Your task to perform on an android device: Add "beats solo 3" to the cart on bestbuy Image 0: 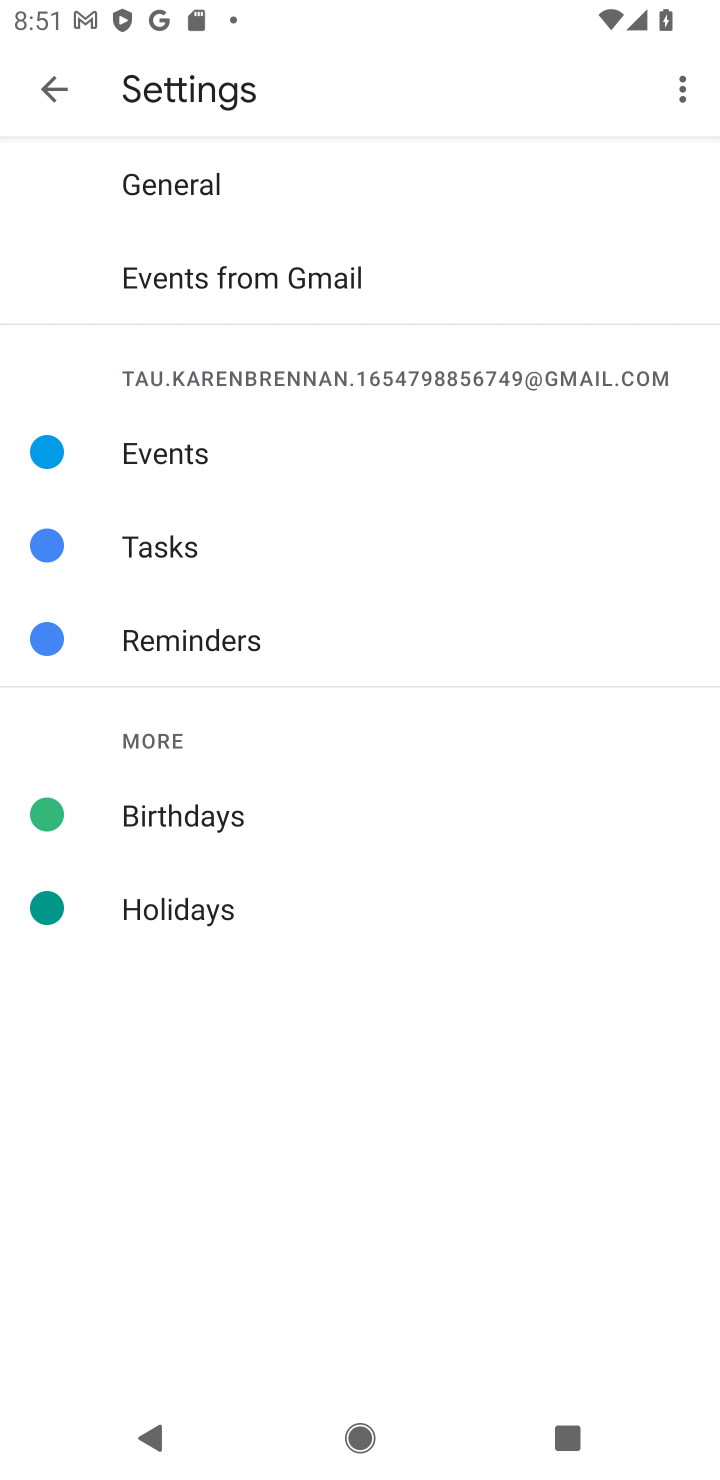
Step 0: press home button
Your task to perform on an android device: Add "beats solo 3" to the cart on bestbuy Image 1: 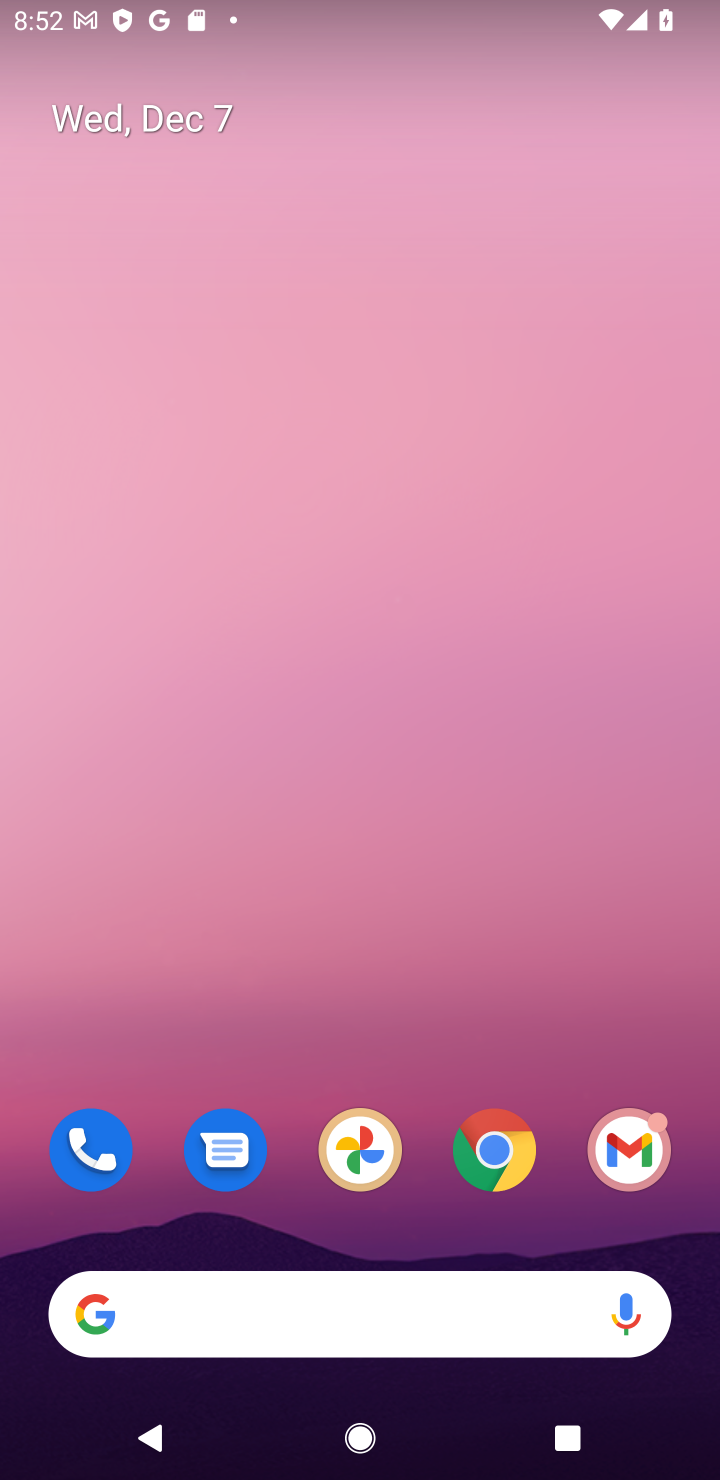
Step 1: click (501, 1165)
Your task to perform on an android device: Add "beats solo 3" to the cart on bestbuy Image 2: 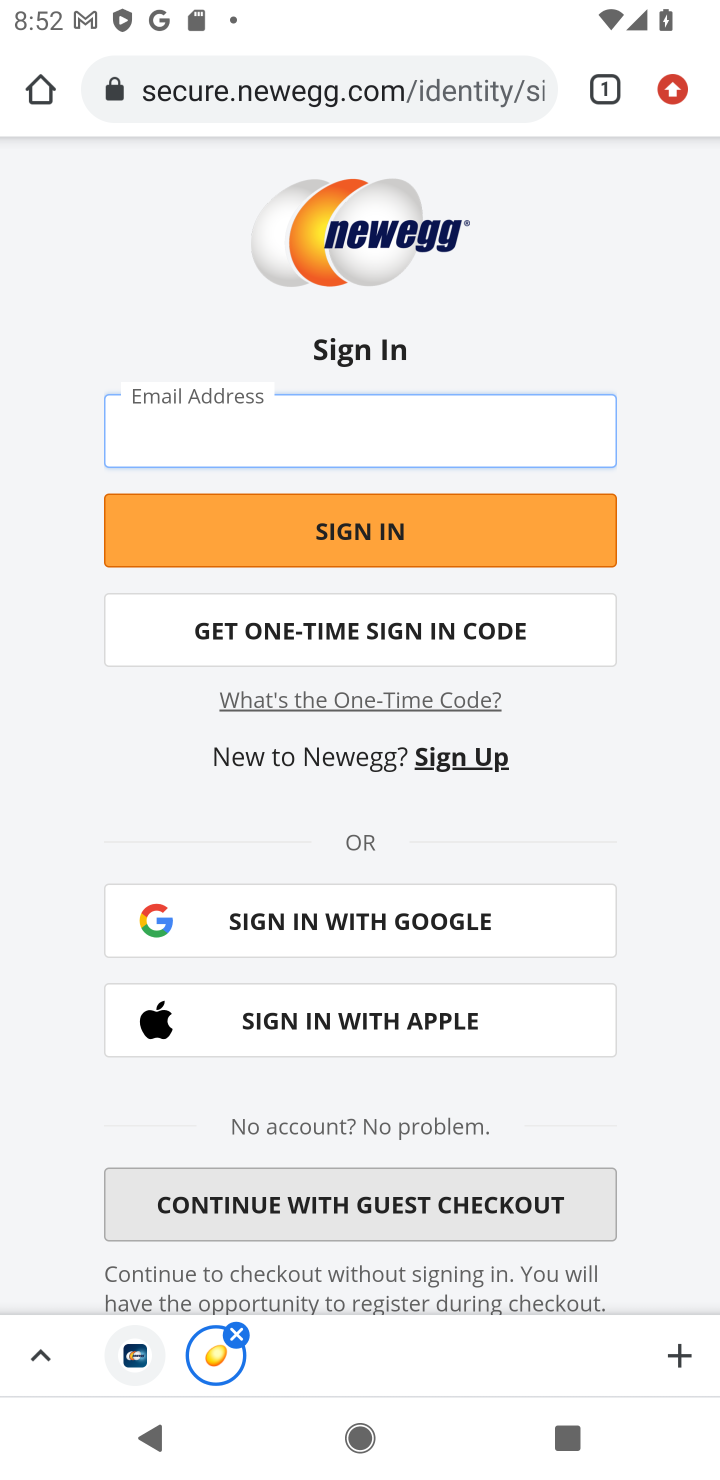
Step 2: click (289, 93)
Your task to perform on an android device: Add "beats solo 3" to the cart on bestbuy Image 3: 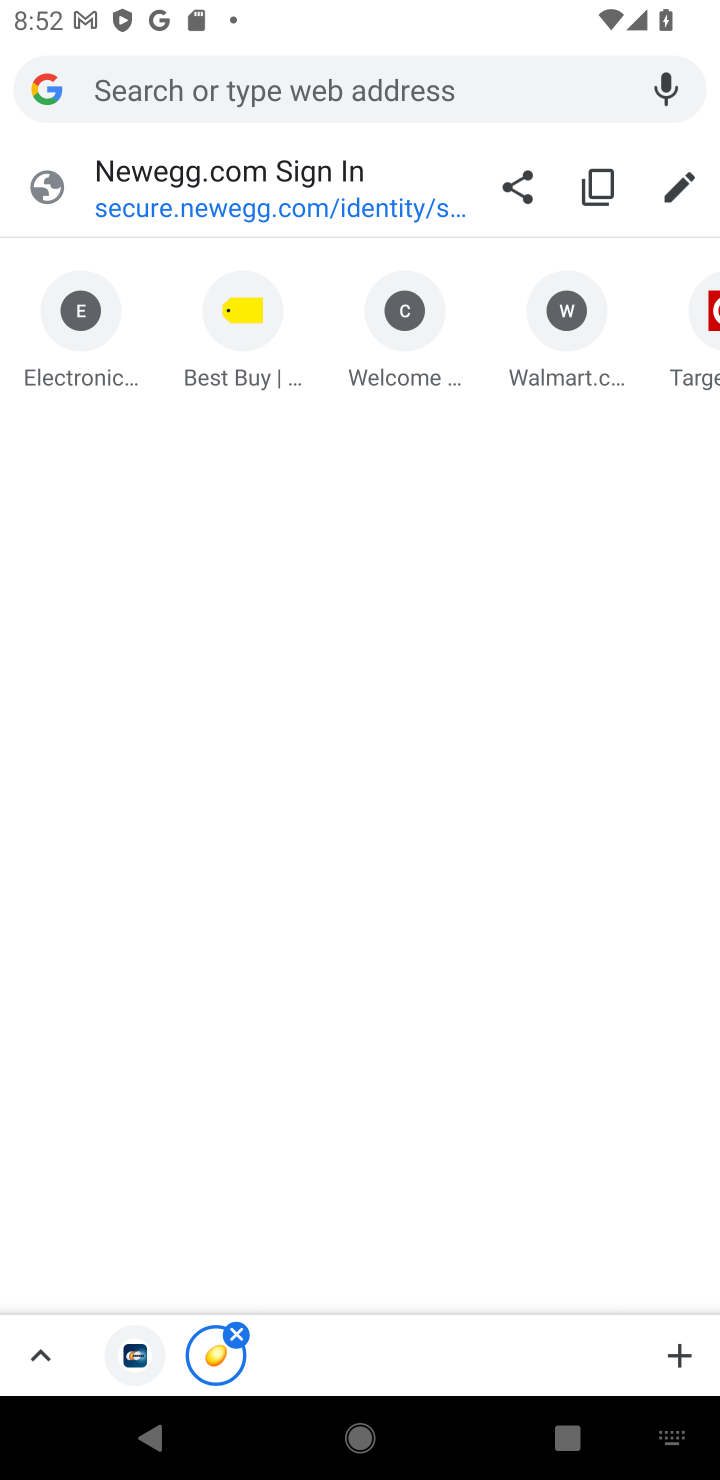
Step 3: type "bestbuy"
Your task to perform on an android device: Add "beats solo 3" to the cart on bestbuy Image 4: 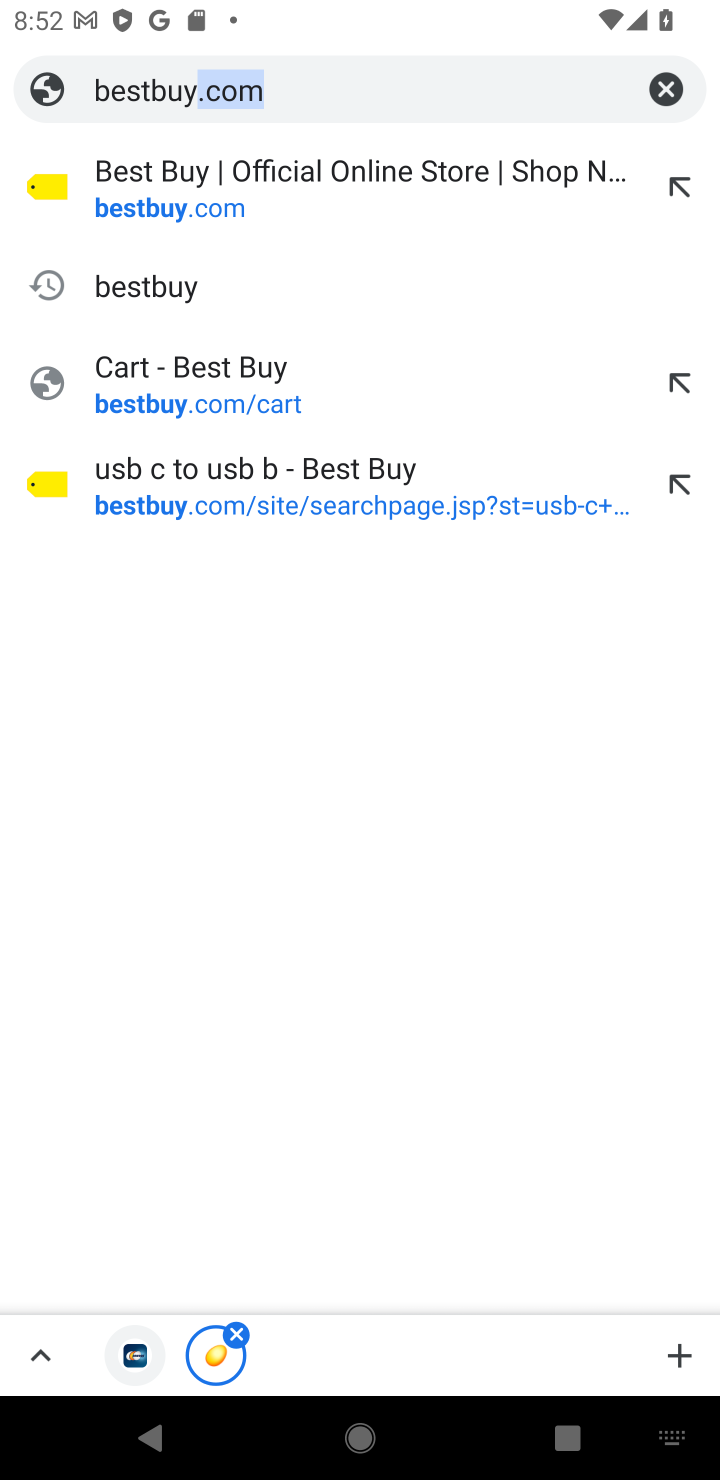
Step 4: click (270, 210)
Your task to perform on an android device: Add "beats solo 3" to the cart on bestbuy Image 5: 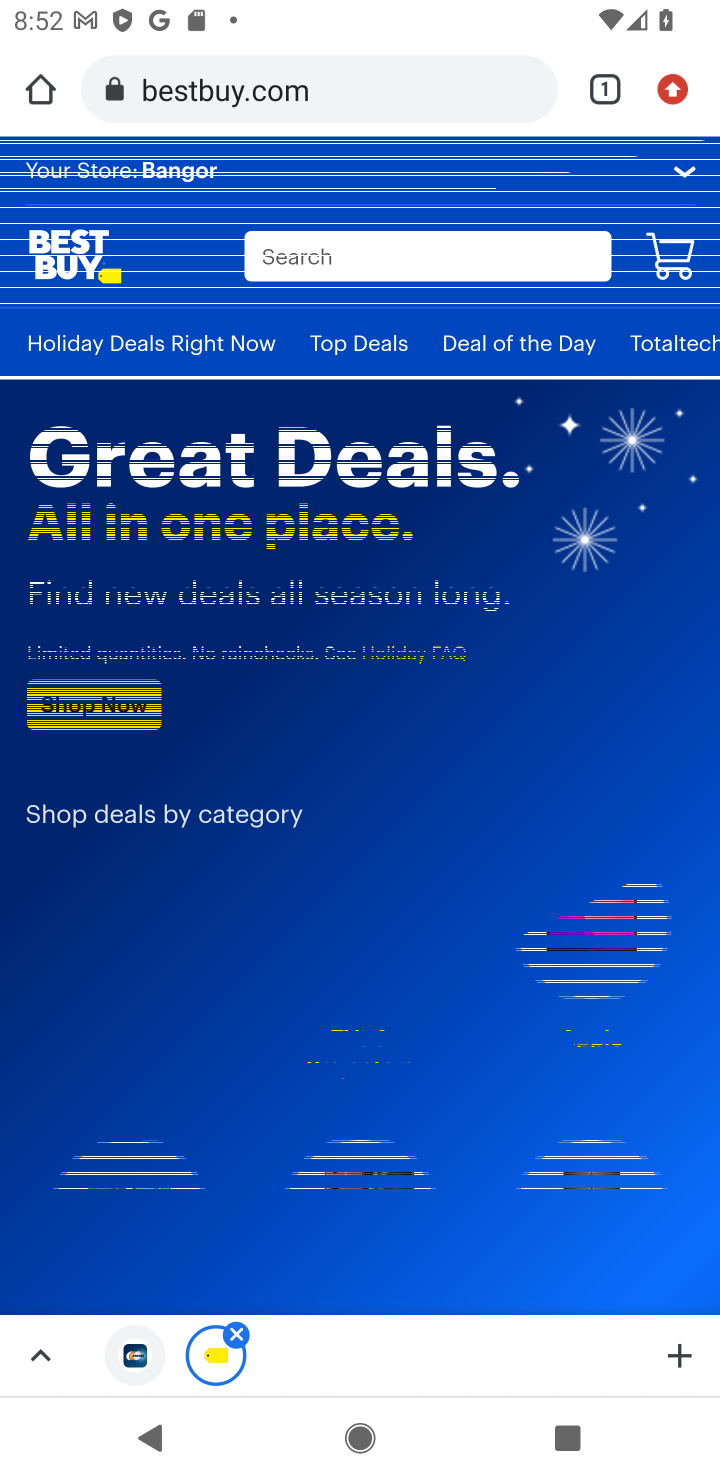
Step 5: click (365, 248)
Your task to perform on an android device: Add "beats solo 3" to the cart on bestbuy Image 6: 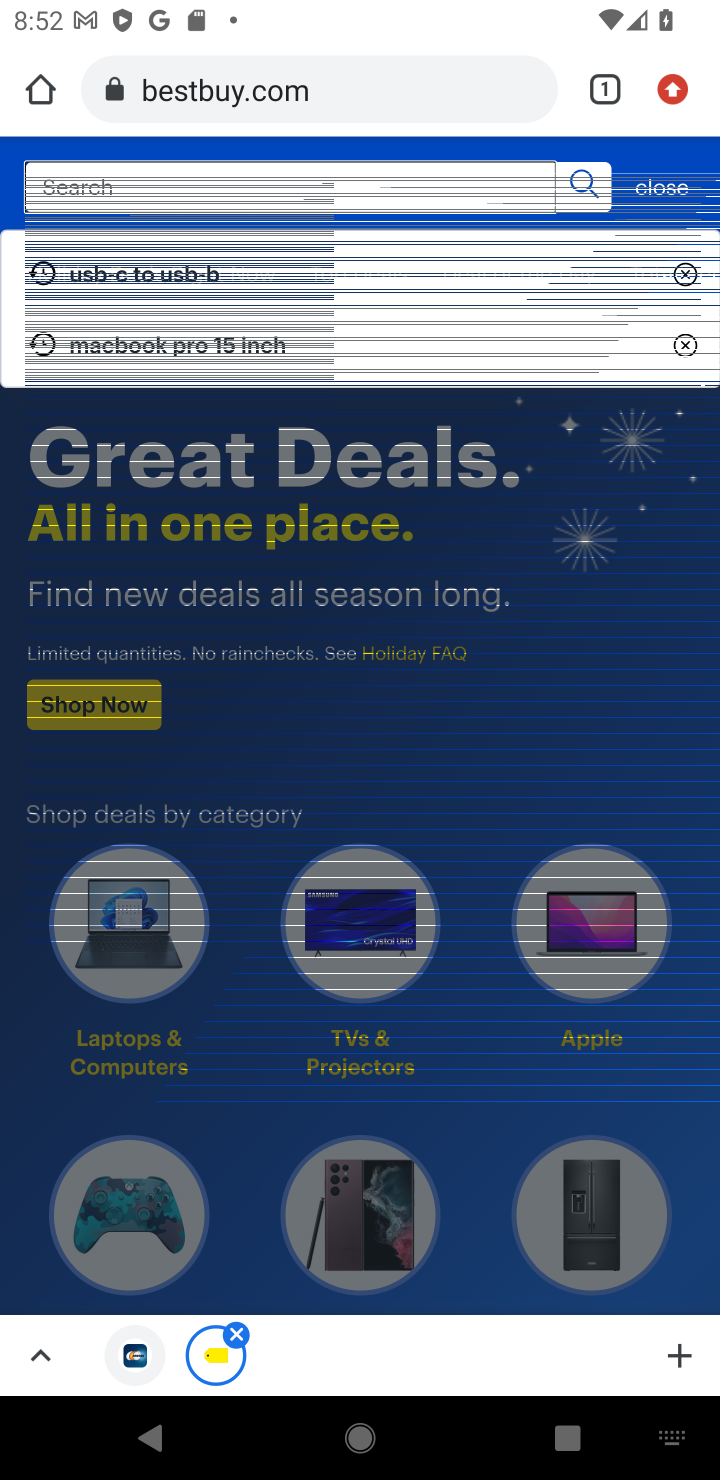
Step 6: type "beats solo 3"
Your task to perform on an android device: Add "beats solo 3" to the cart on bestbuy Image 7: 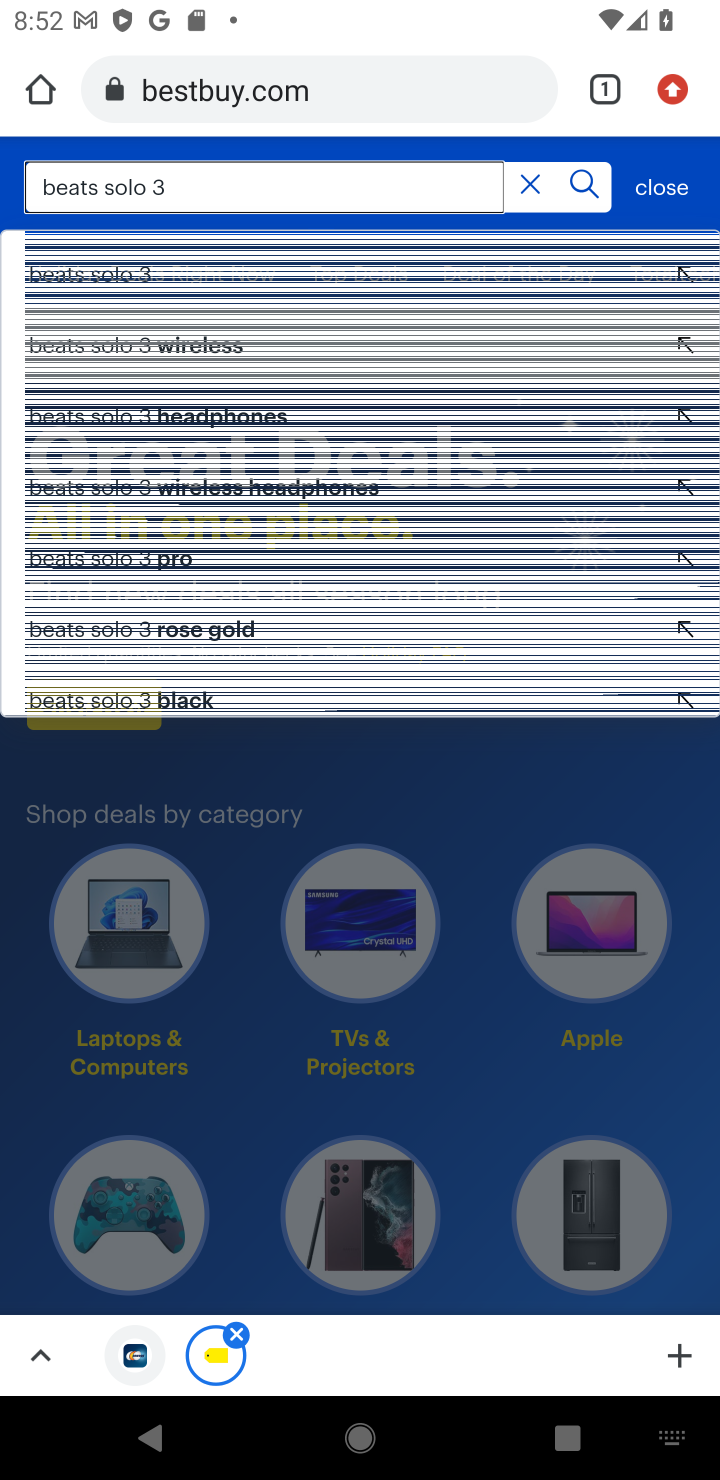
Step 7: press enter
Your task to perform on an android device: Add "beats solo 3" to the cart on bestbuy Image 8: 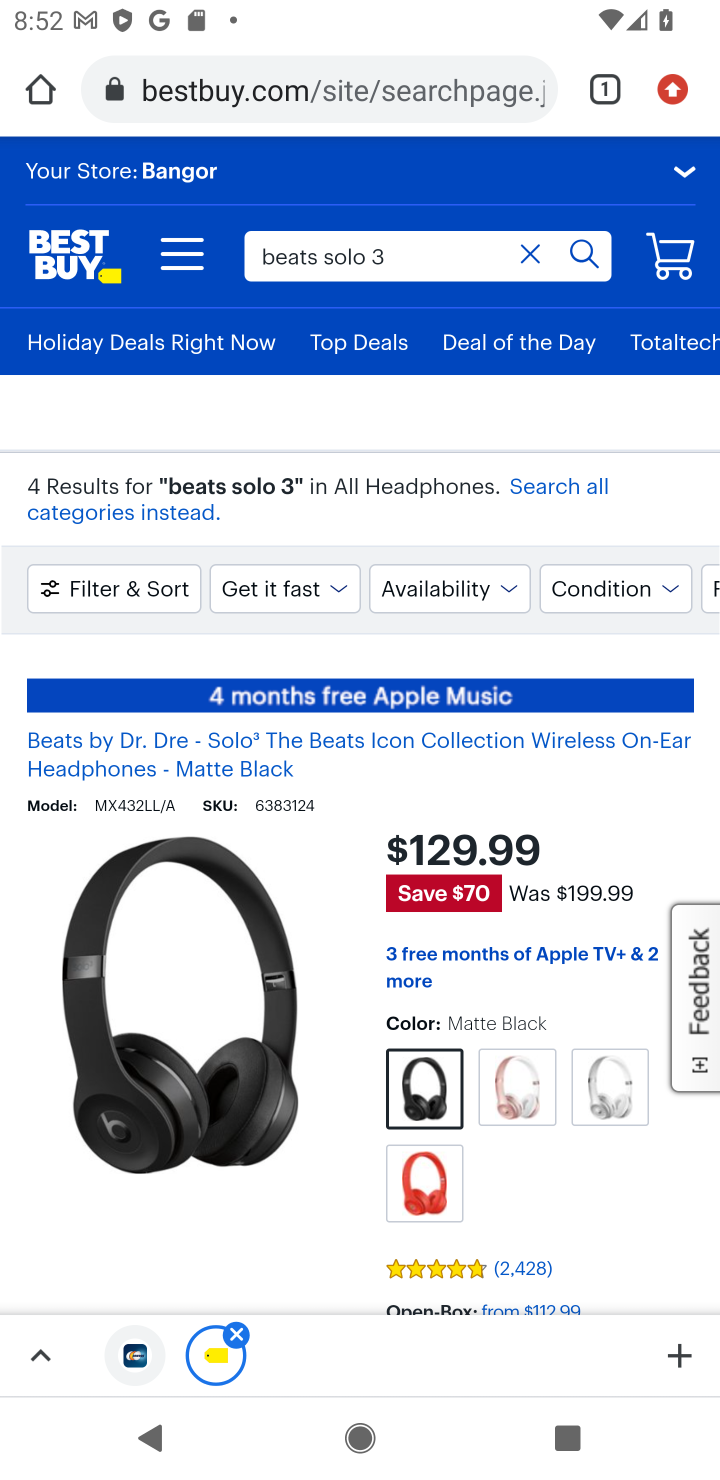
Step 8: drag from (364, 925) to (411, 409)
Your task to perform on an android device: Add "beats solo 3" to the cart on bestbuy Image 9: 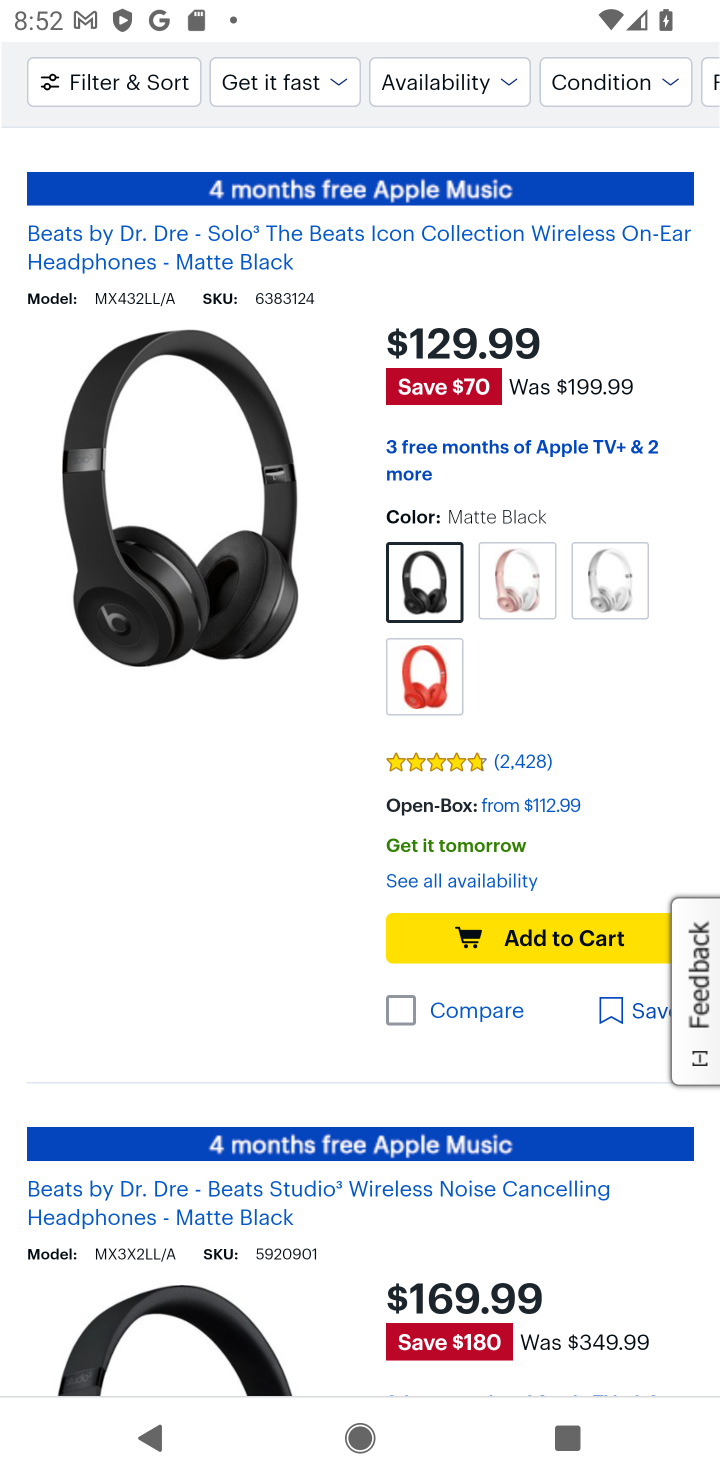
Step 9: drag from (512, 1183) to (561, 1462)
Your task to perform on an android device: Add "beats solo 3" to the cart on bestbuy Image 10: 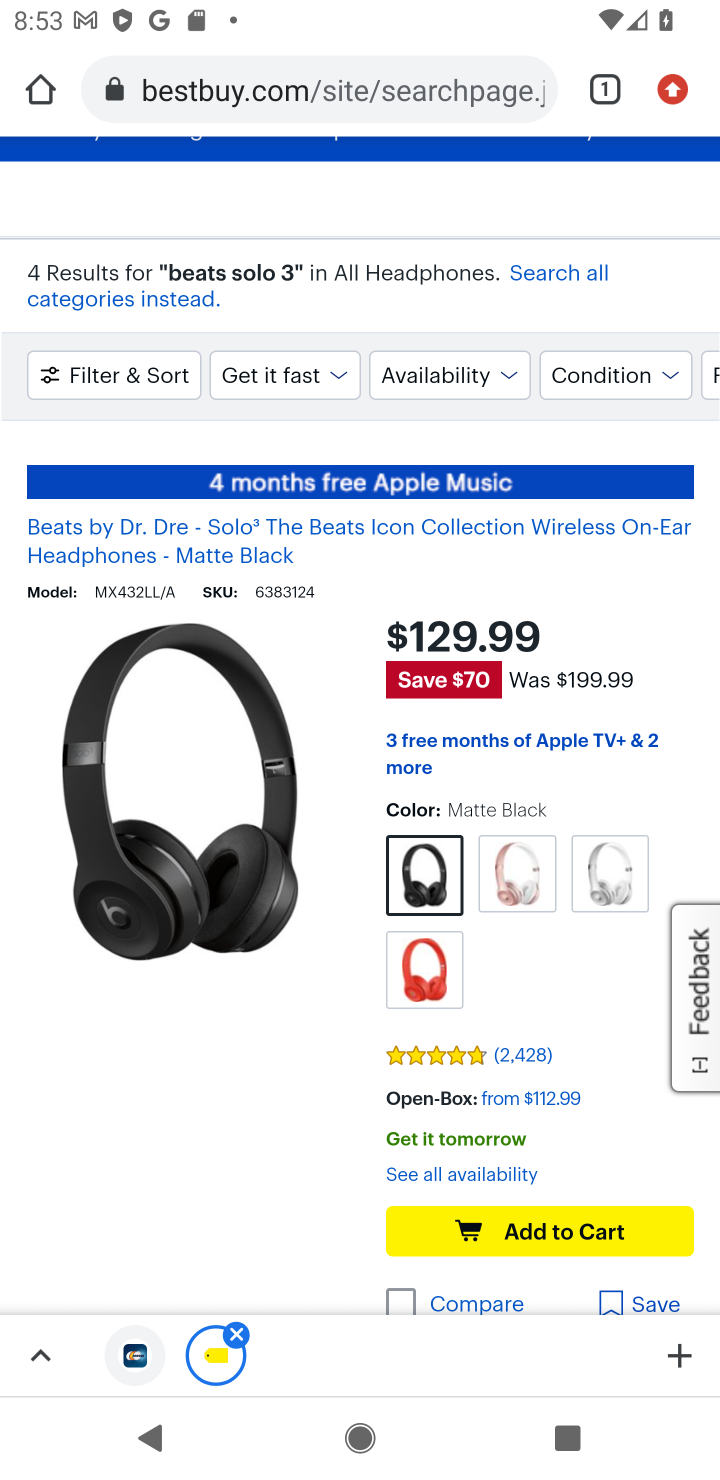
Step 10: click (540, 1238)
Your task to perform on an android device: Add "beats solo 3" to the cart on bestbuy Image 11: 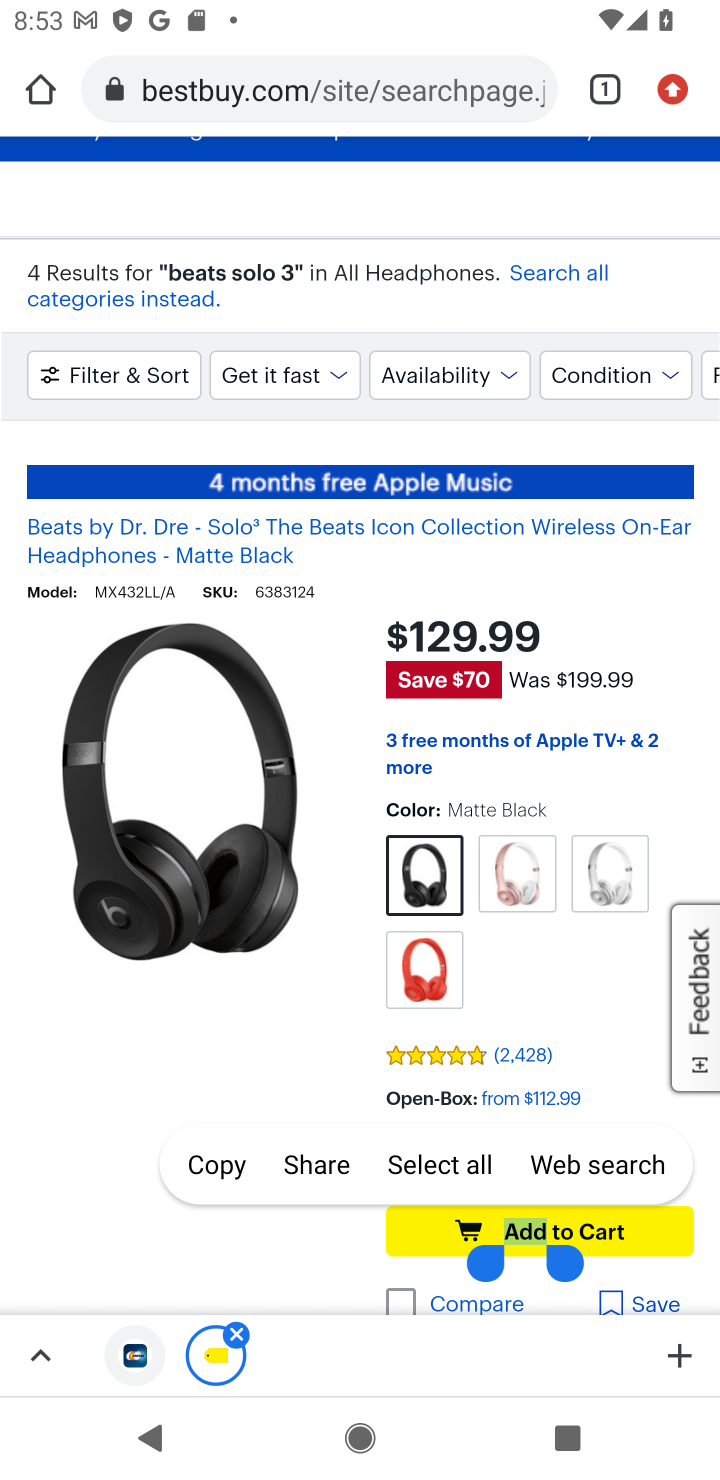
Step 11: click (295, 1093)
Your task to perform on an android device: Add "beats solo 3" to the cart on bestbuy Image 12: 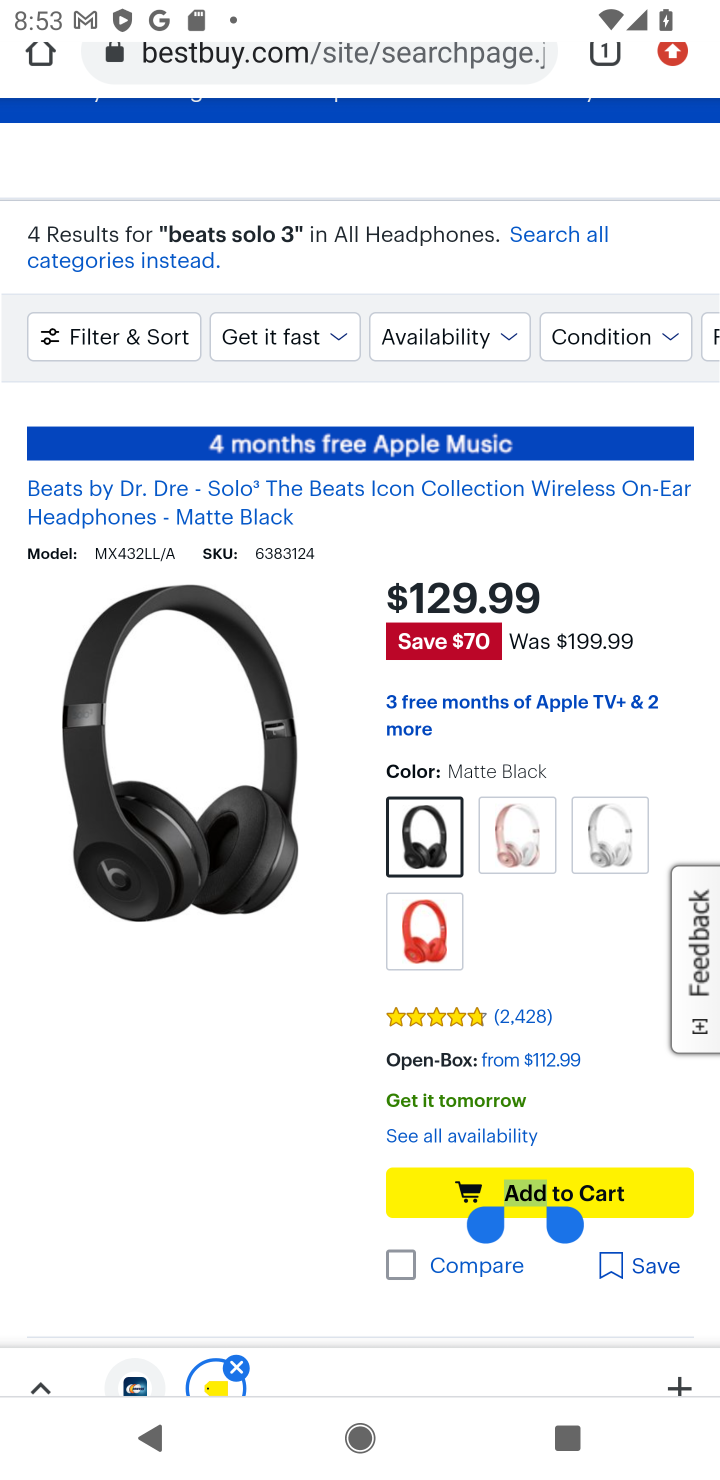
Step 12: click (298, 1036)
Your task to perform on an android device: Add "beats solo 3" to the cart on bestbuy Image 13: 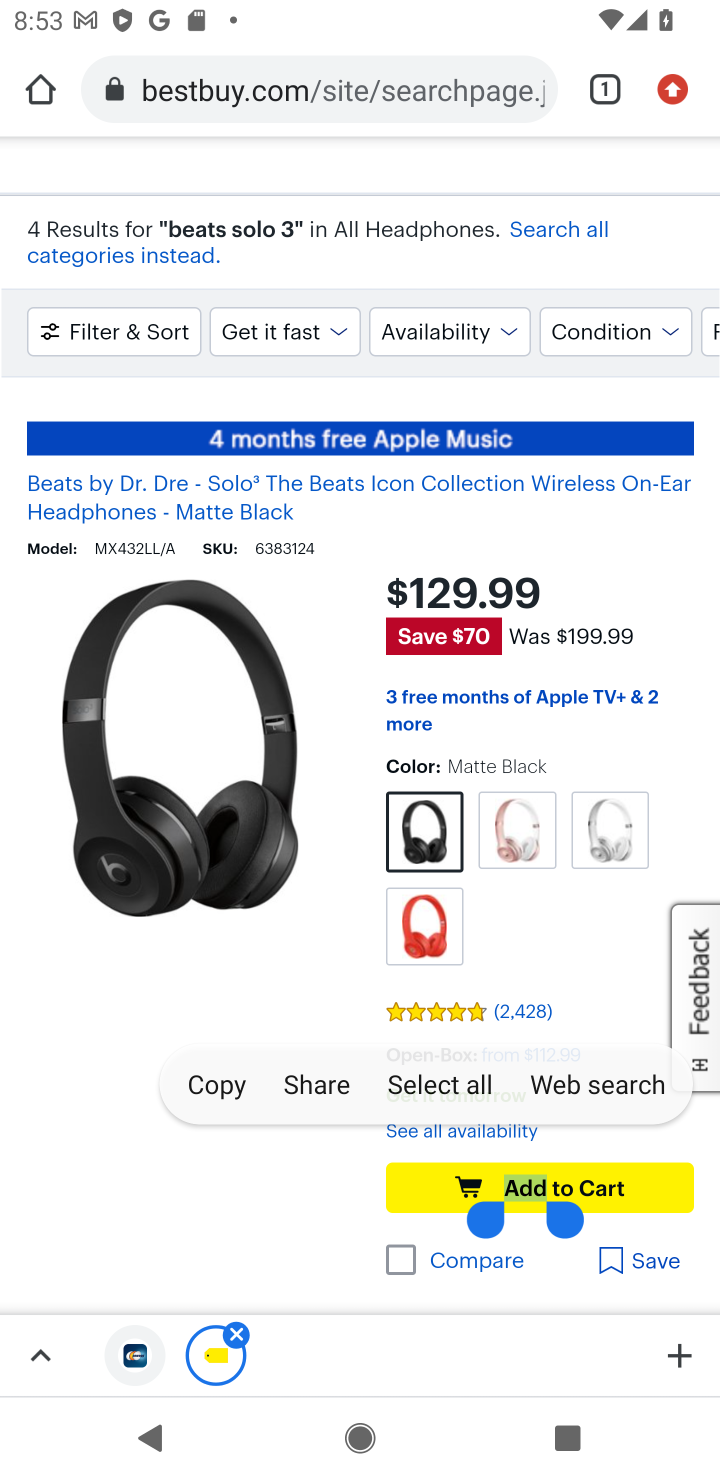
Step 13: drag from (298, 1036) to (676, 463)
Your task to perform on an android device: Add "beats solo 3" to the cart on bestbuy Image 14: 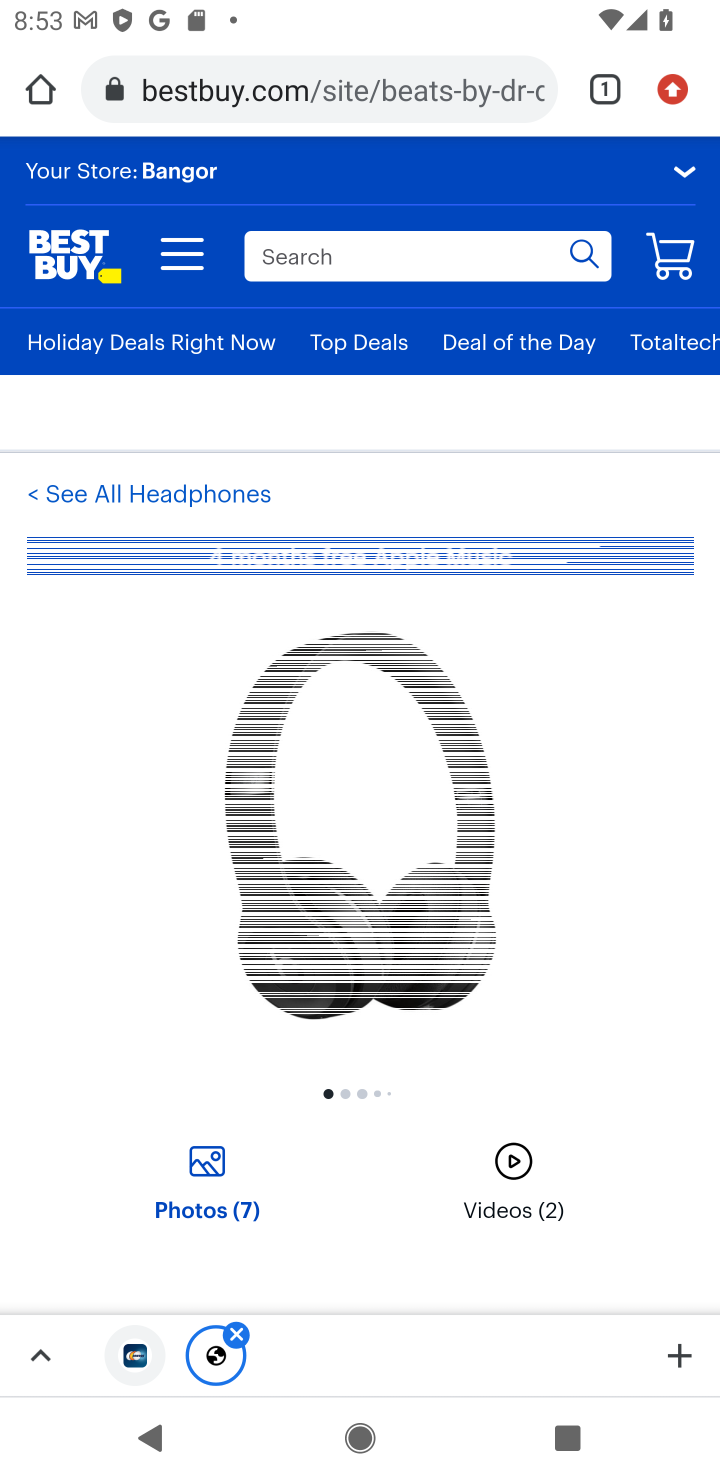
Step 14: drag from (566, 985) to (660, 403)
Your task to perform on an android device: Add "beats solo 3" to the cart on bestbuy Image 15: 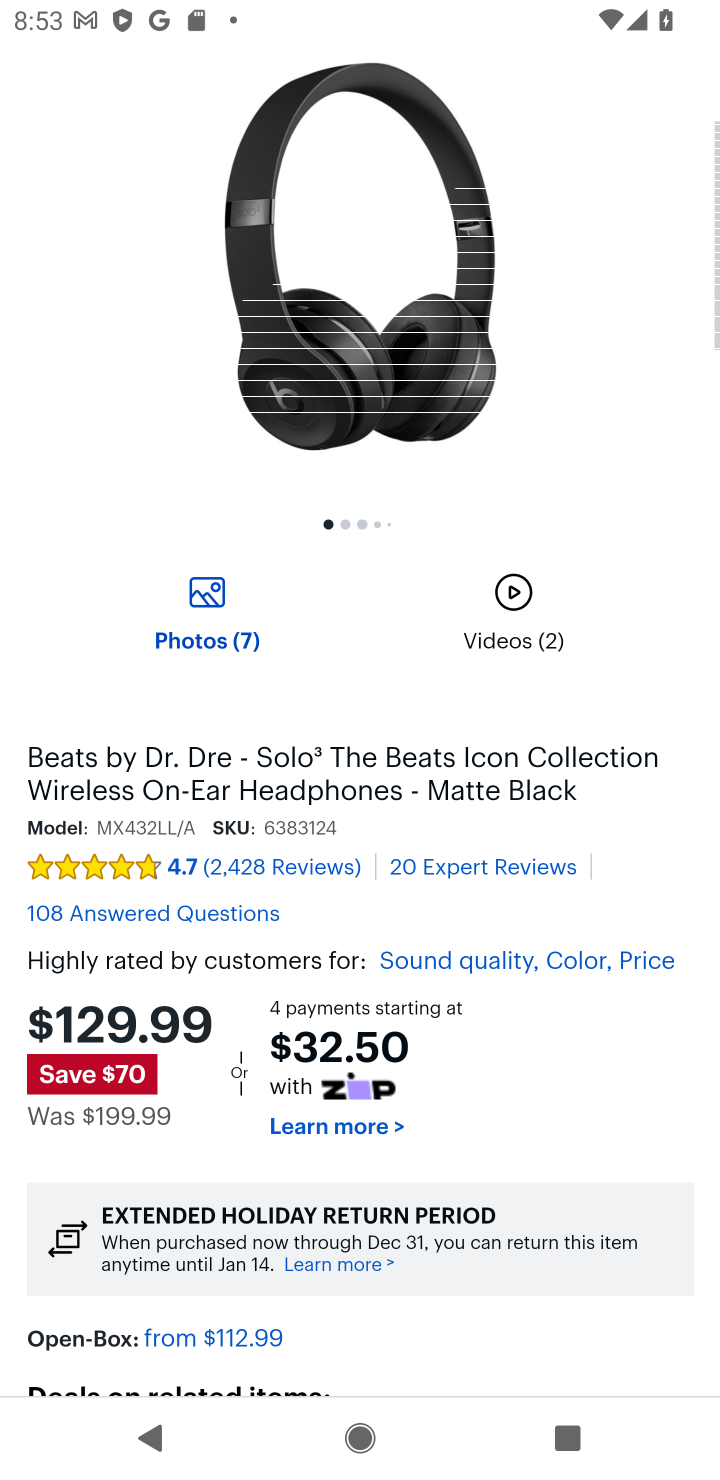
Step 15: drag from (496, 1056) to (572, 372)
Your task to perform on an android device: Add "beats solo 3" to the cart on bestbuy Image 16: 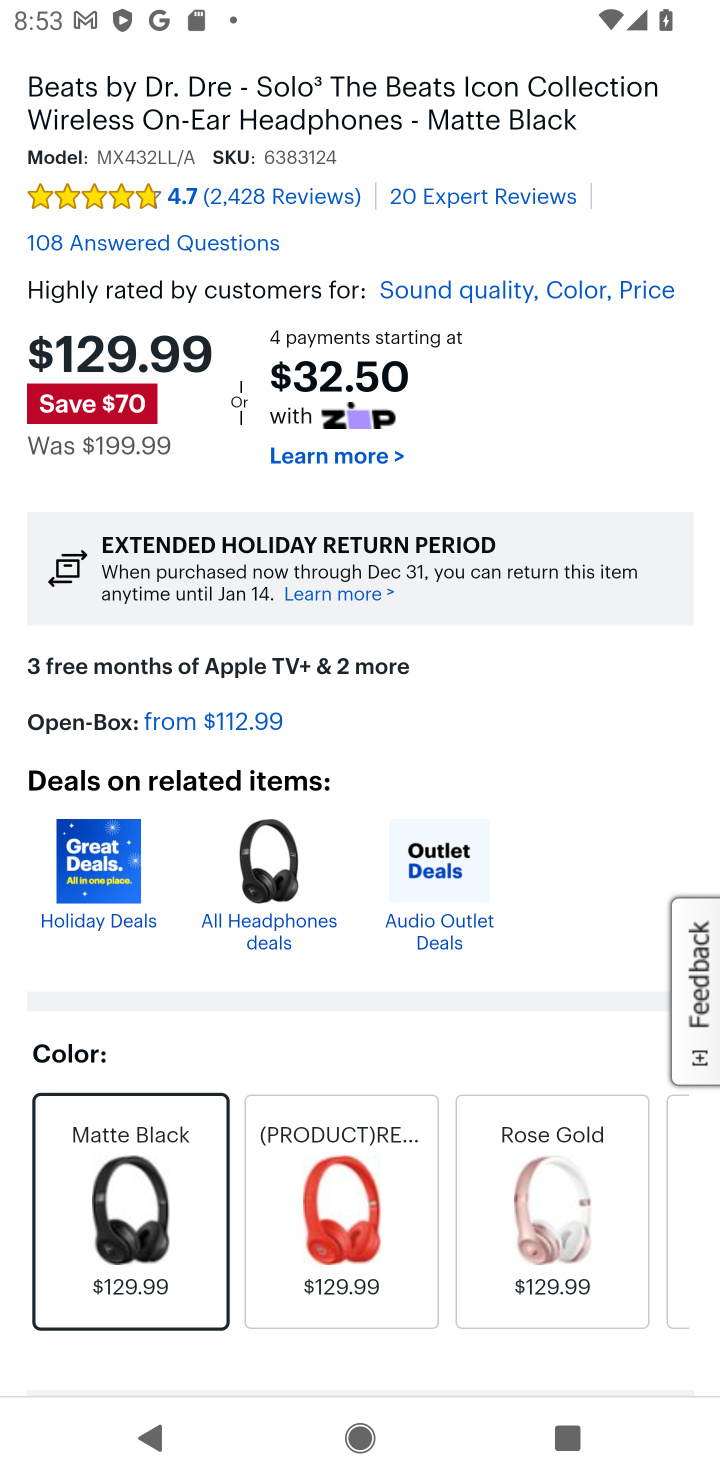
Step 16: drag from (469, 926) to (522, 308)
Your task to perform on an android device: Add "beats solo 3" to the cart on bestbuy Image 17: 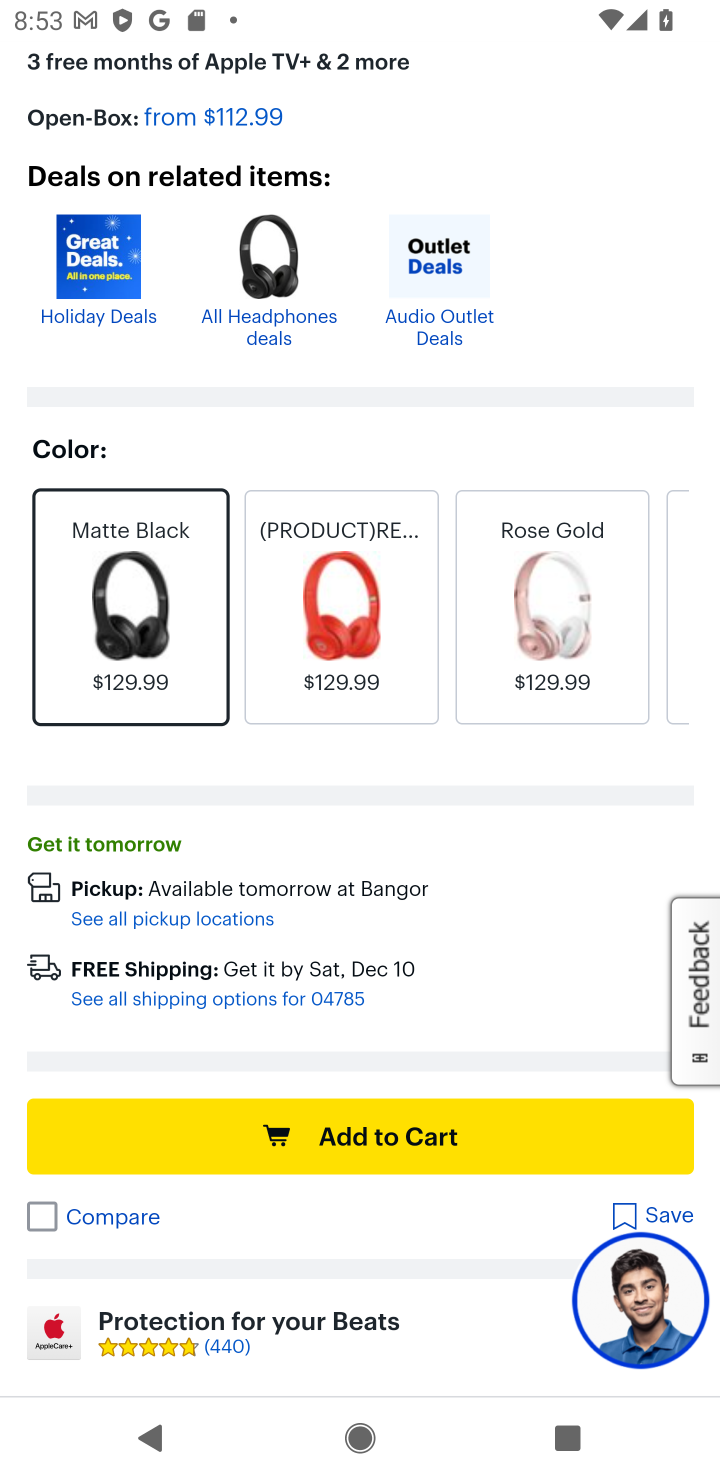
Step 17: click (510, 945)
Your task to perform on an android device: Add "beats solo 3" to the cart on bestbuy Image 18: 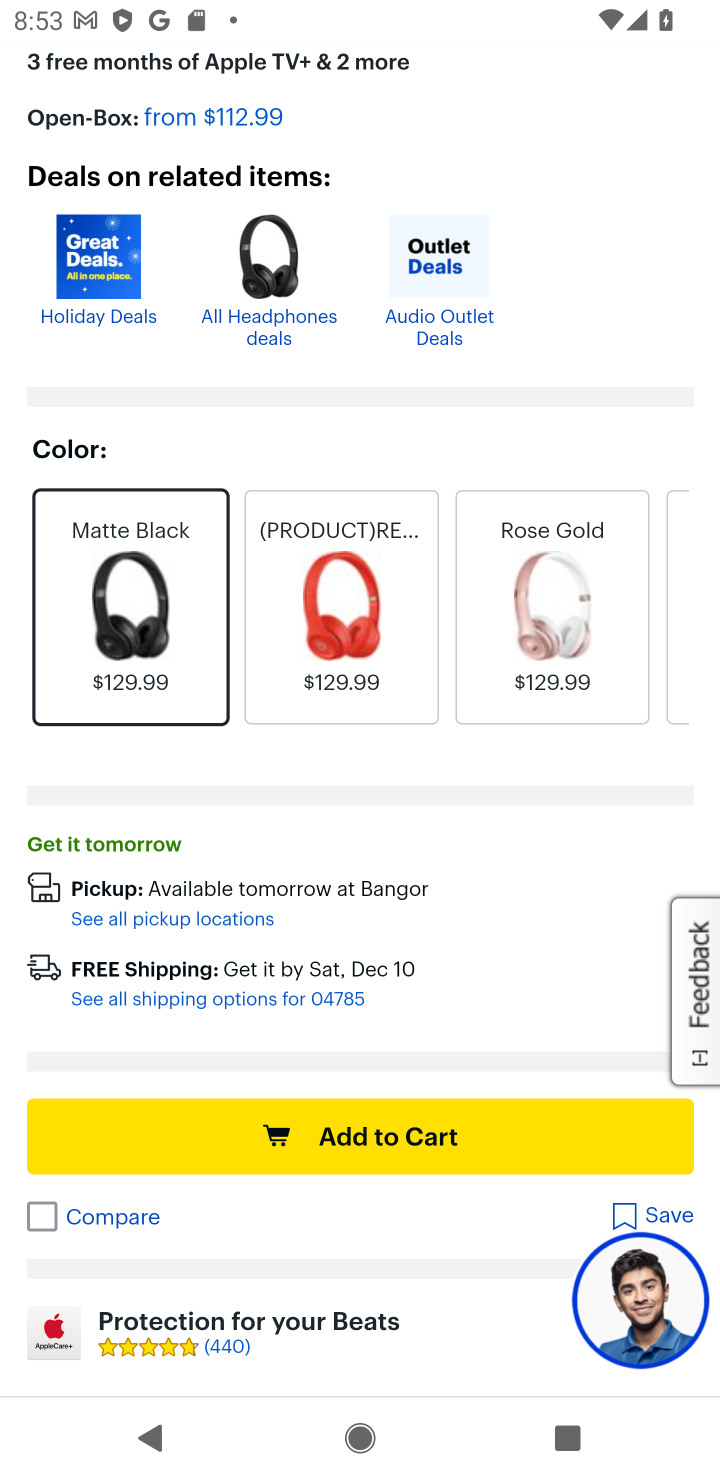
Step 18: click (428, 1147)
Your task to perform on an android device: Add "beats solo 3" to the cart on bestbuy Image 19: 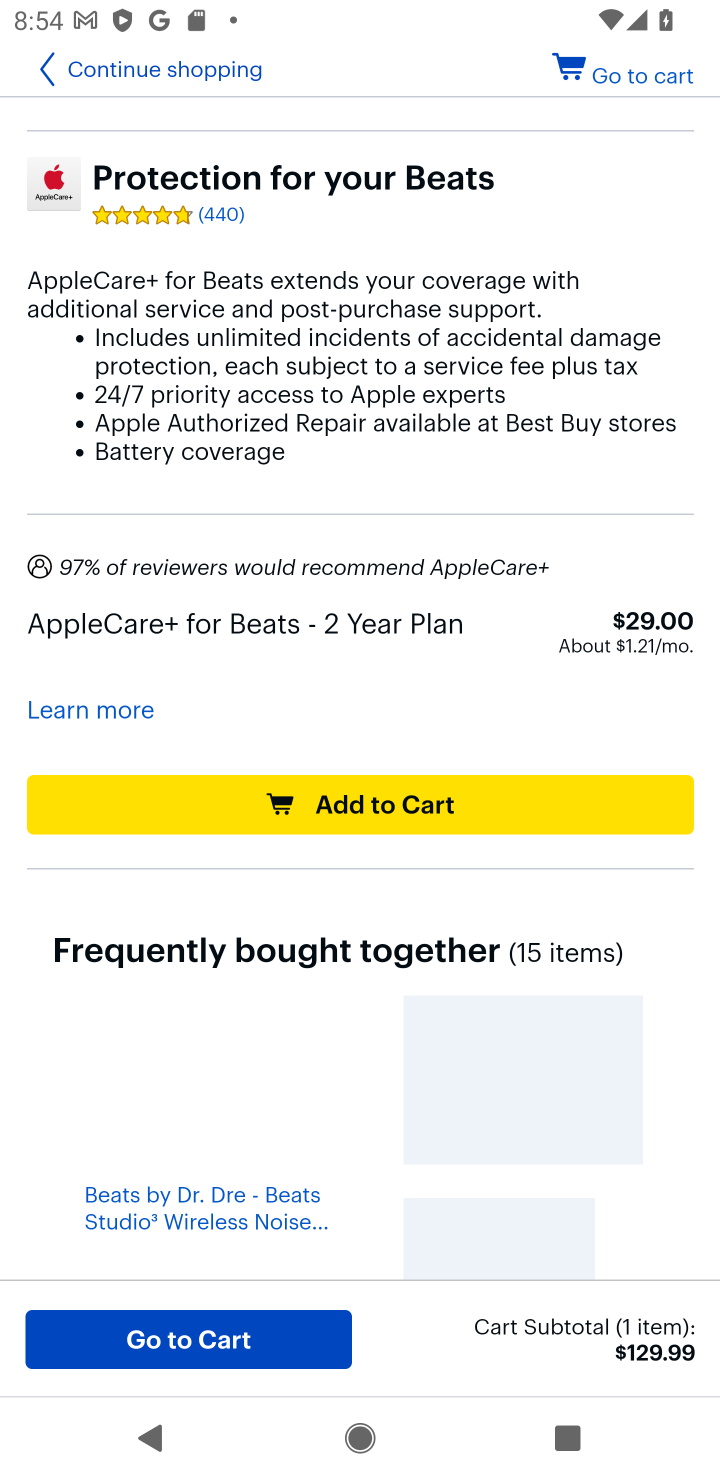
Step 19: click (215, 1349)
Your task to perform on an android device: Add "beats solo 3" to the cart on bestbuy Image 20: 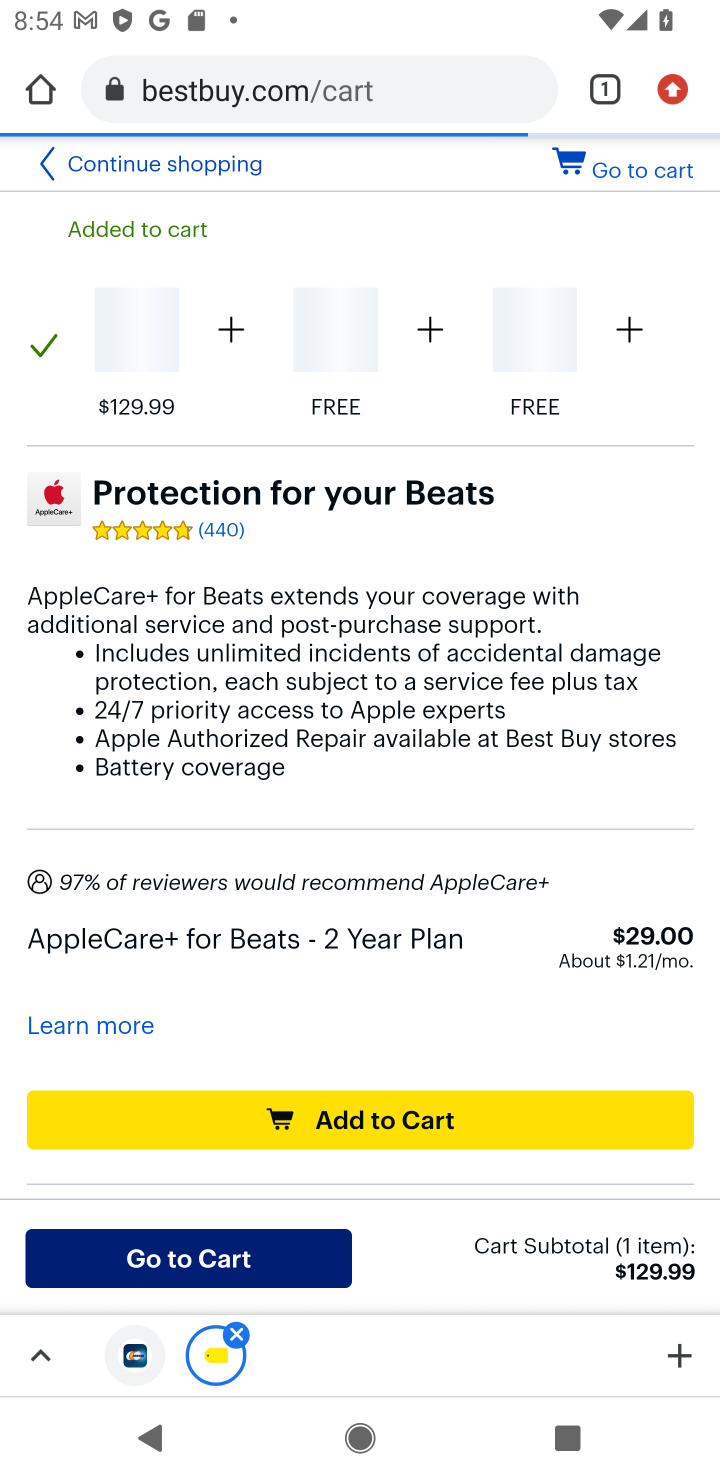
Step 20: click (323, 1116)
Your task to perform on an android device: Add "beats solo 3" to the cart on bestbuy Image 21: 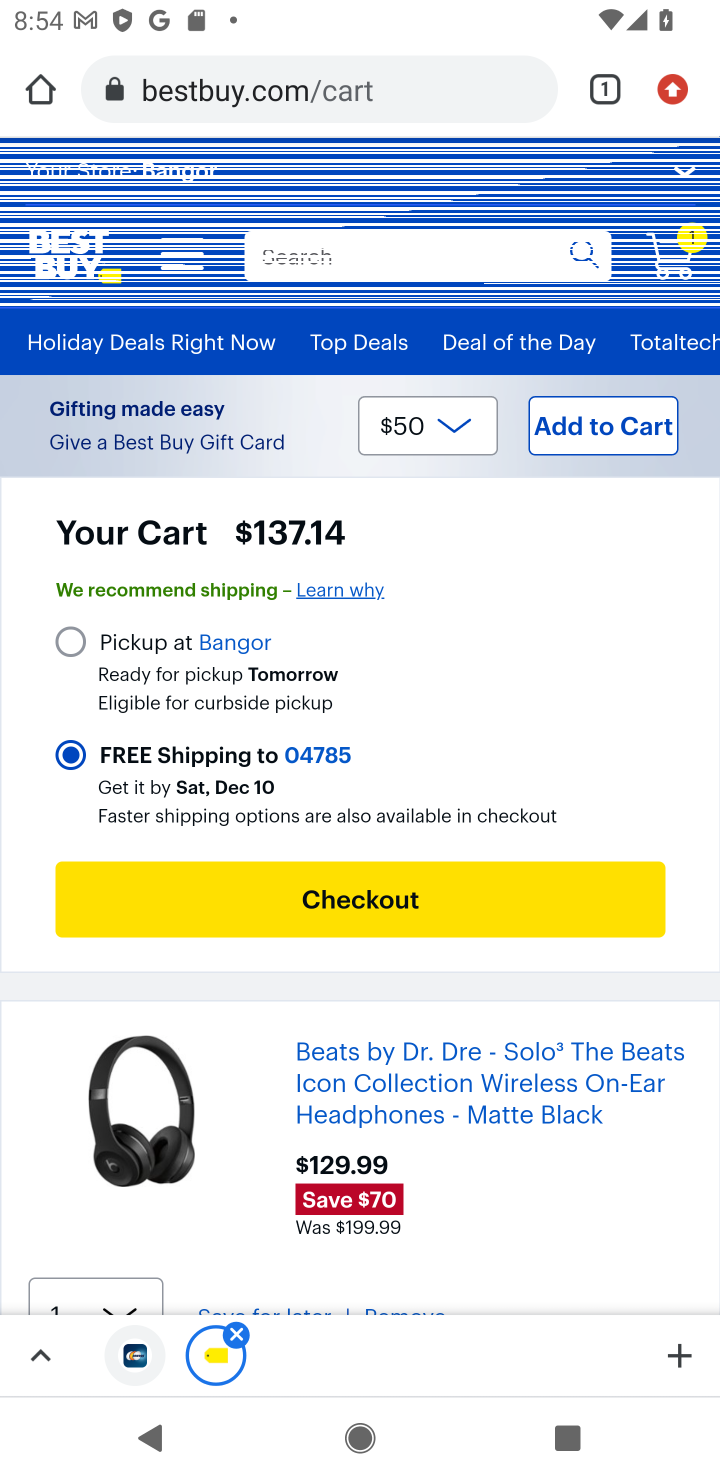
Step 21: task complete